Your task to perform on an android device: turn on data saver in the chrome app Image 0: 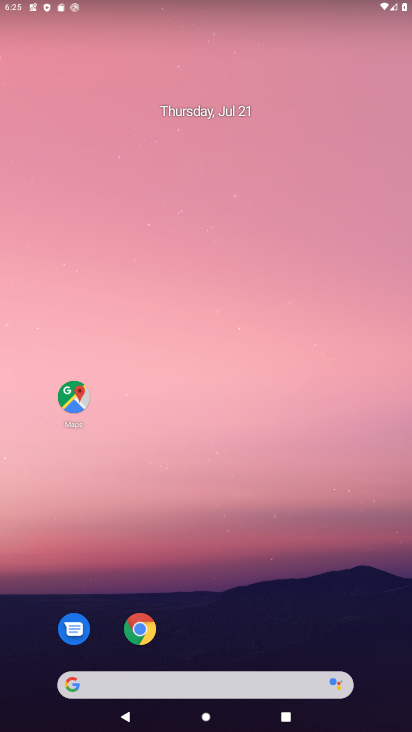
Step 0: click (141, 631)
Your task to perform on an android device: turn on data saver in the chrome app Image 1: 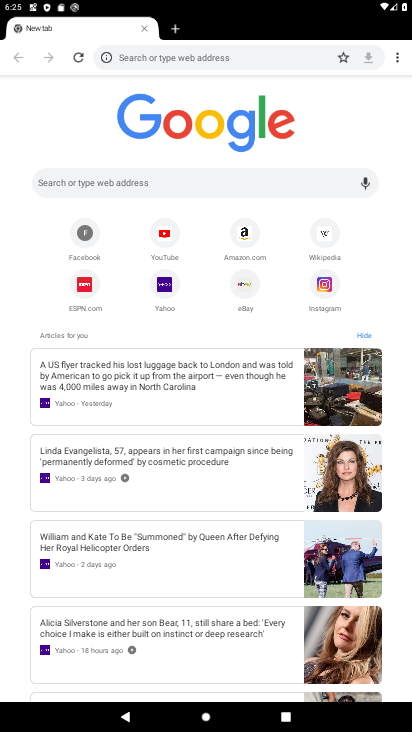
Step 1: click (396, 55)
Your task to perform on an android device: turn on data saver in the chrome app Image 2: 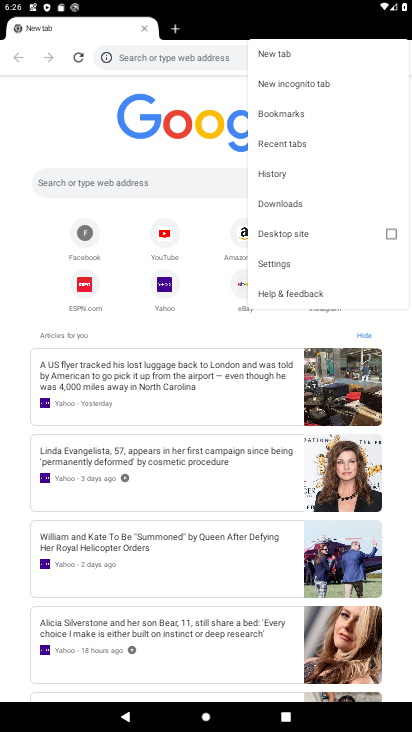
Step 2: click (287, 264)
Your task to perform on an android device: turn on data saver in the chrome app Image 3: 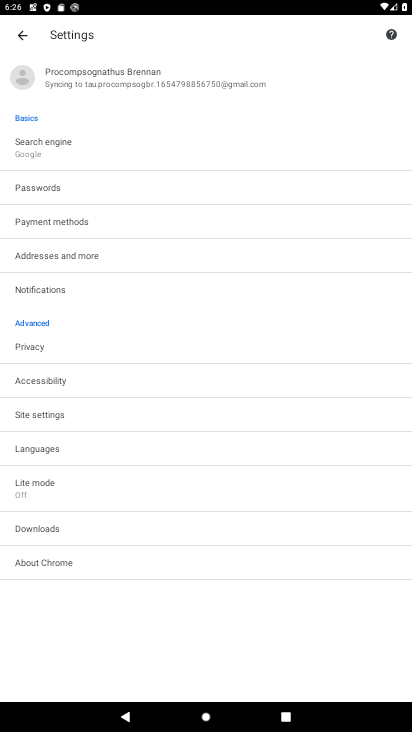
Step 3: click (42, 484)
Your task to perform on an android device: turn on data saver in the chrome app Image 4: 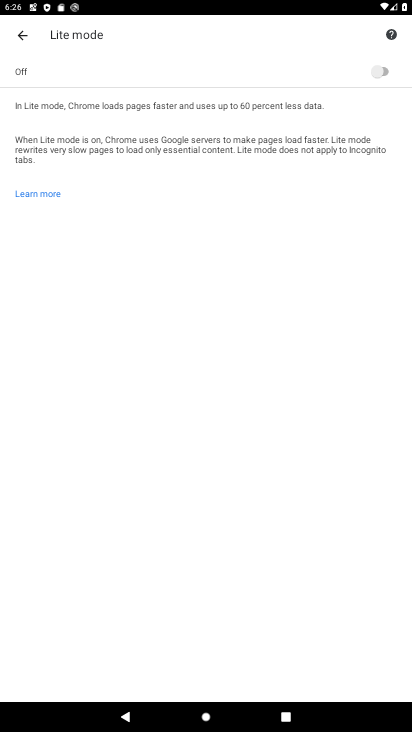
Step 4: click (379, 69)
Your task to perform on an android device: turn on data saver in the chrome app Image 5: 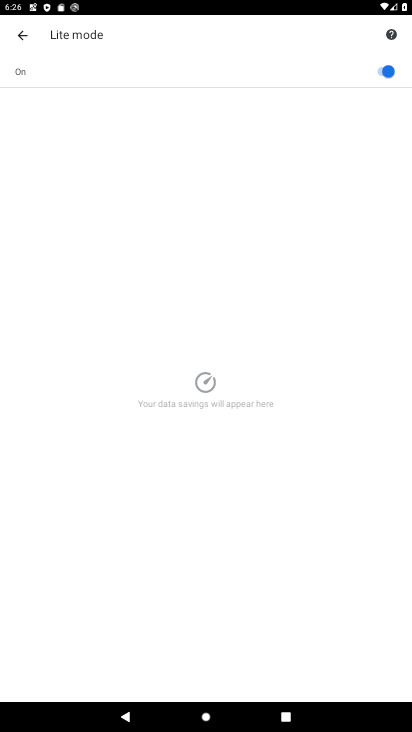
Step 5: task complete